Your task to perform on an android device: toggle sleep mode Image 0: 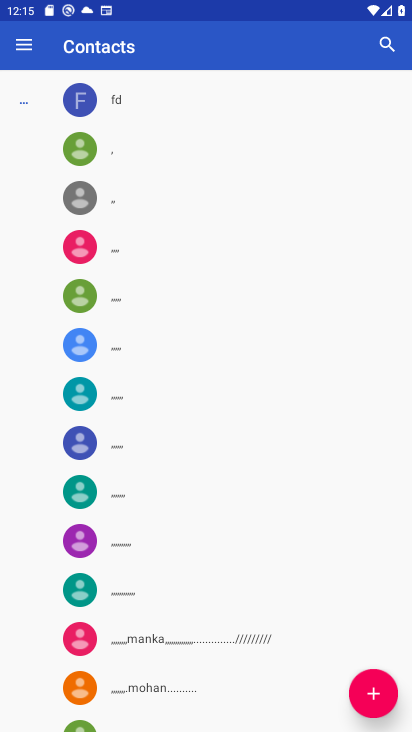
Step 0: press home button
Your task to perform on an android device: toggle sleep mode Image 1: 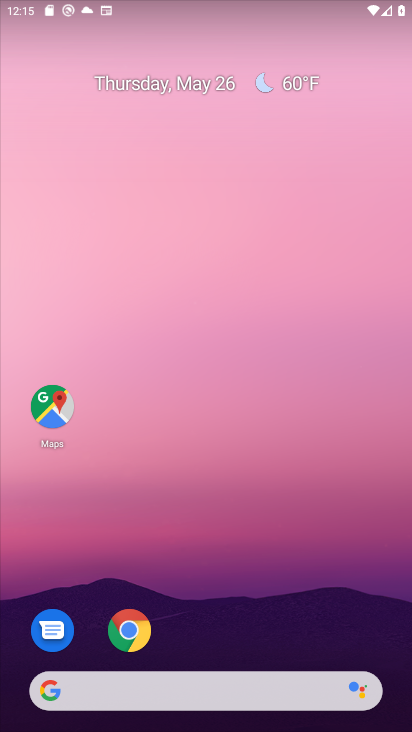
Step 1: drag from (257, 610) to (303, 79)
Your task to perform on an android device: toggle sleep mode Image 2: 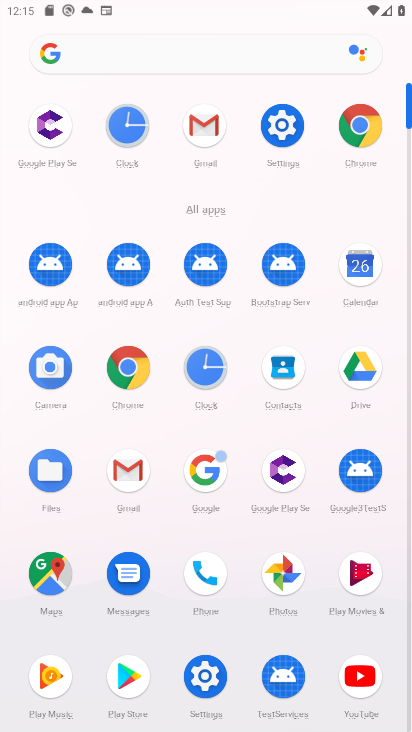
Step 2: click (290, 127)
Your task to perform on an android device: toggle sleep mode Image 3: 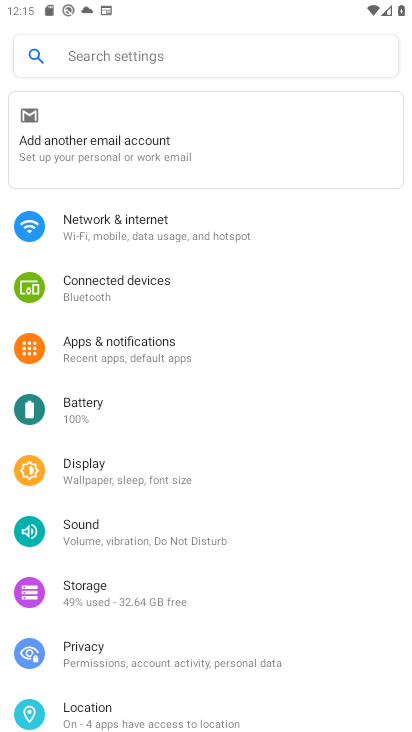
Step 3: click (106, 468)
Your task to perform on an android device: toggle sleep mode Image 4: 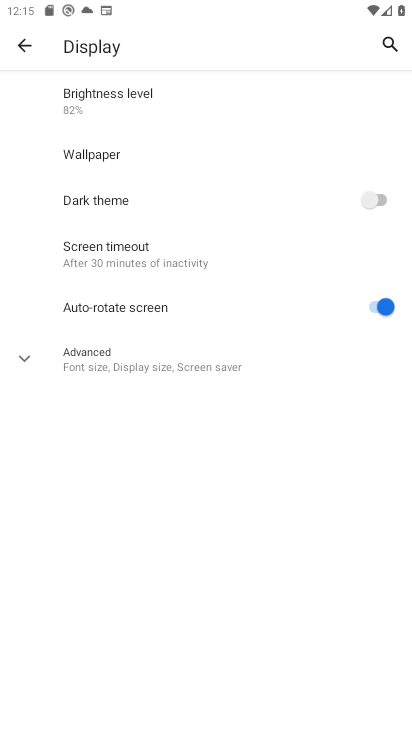
Step 4: click (83, 246)
Your task to perform on an android device: toggle sleep mode Image 5: 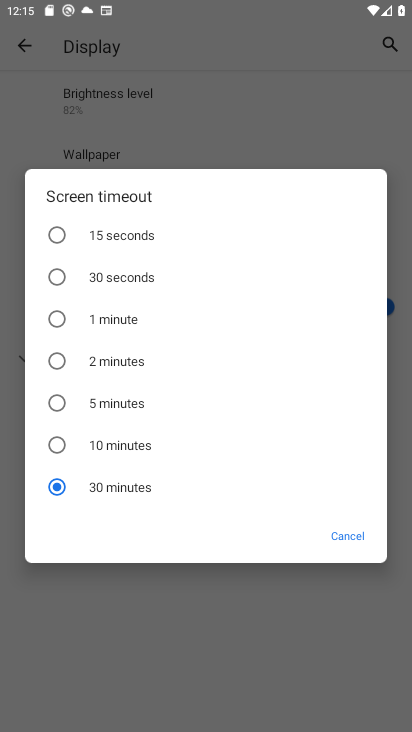
Step 5: click (94, 335)
Your task to perform on an android device: toggle sleep mode Image 6: 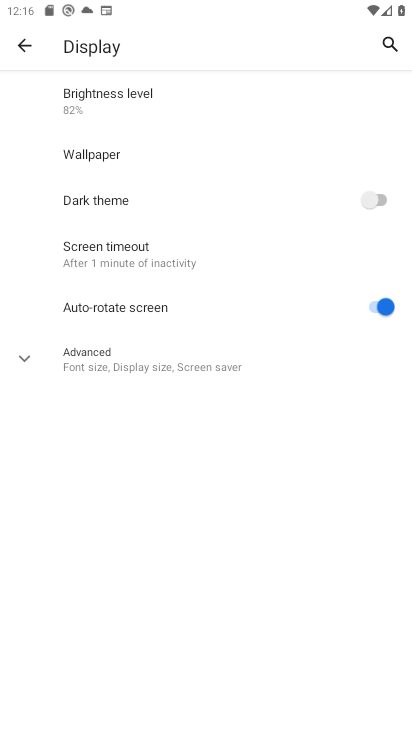
Step 6: task complete